Your task to perform on an android device: read, delete, or share a saved page in the chrome app Image 0: 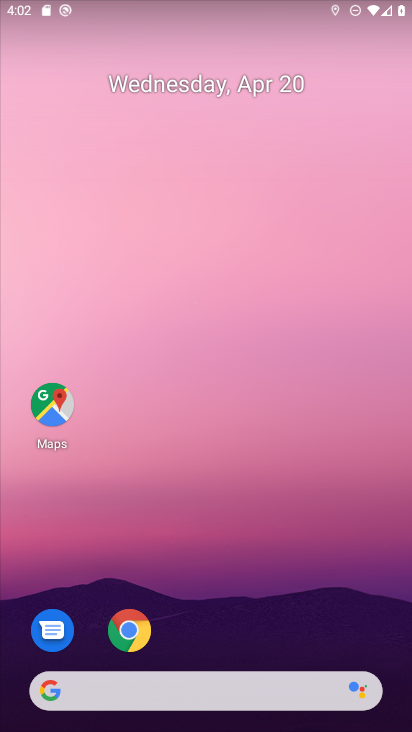
Step 0: drag from (230, 638) to (378, 0)
Your task to perform on an android device: read, delete, or share a saved page in the chrome app Image 1: 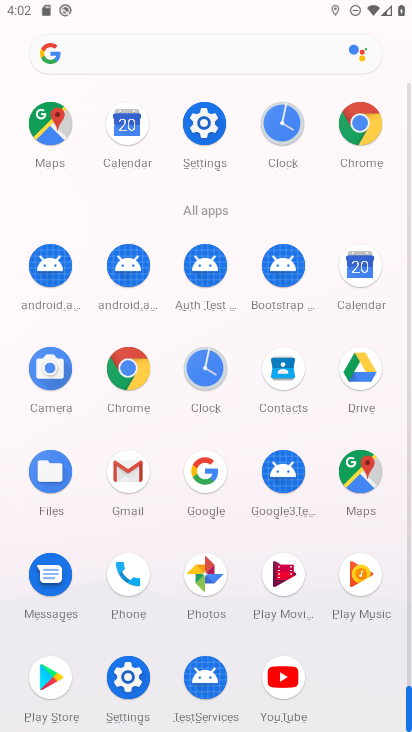
Step 1: click (144, 369)
Your task to perform on an android device: read, delete, or share a saved page in the chrome app Image 2: 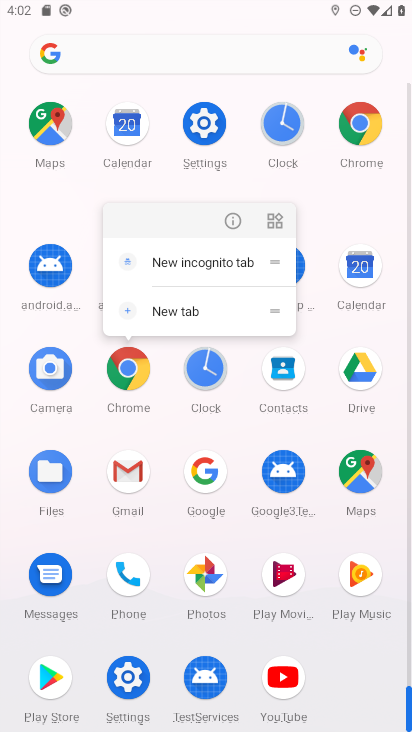
Step 2: click (144, 369)
Your task to perform on an android device: read, delete, or share a saved page in the chrome app Image 3: 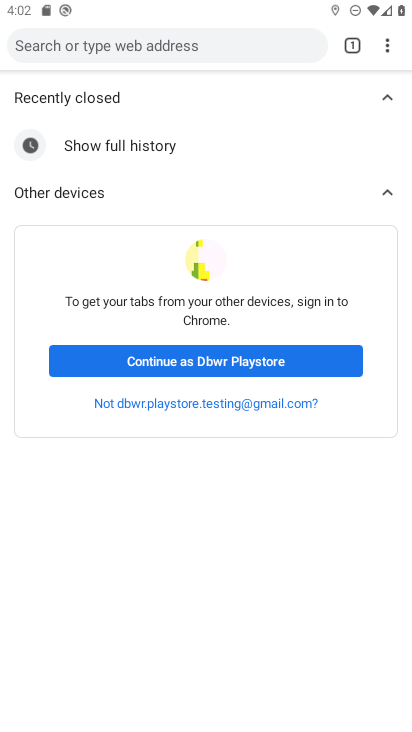
Step 3: task complete